Your task to perform on an android device: turn on javascript in the chrome app Image 0: 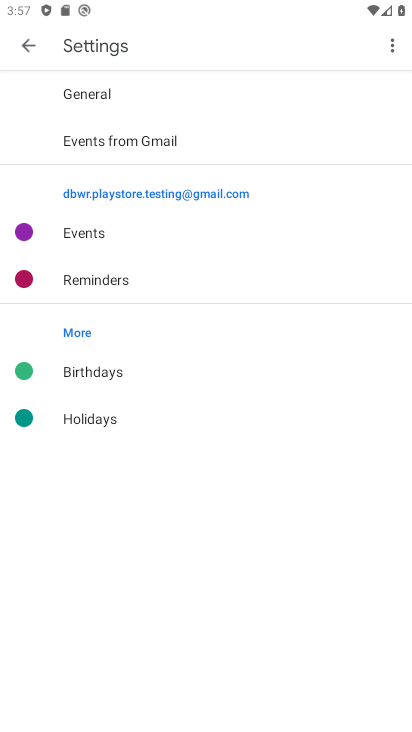
Step 0: press back button
Your task to perform on an android device: turn on javascript in the chrome app Image 1: 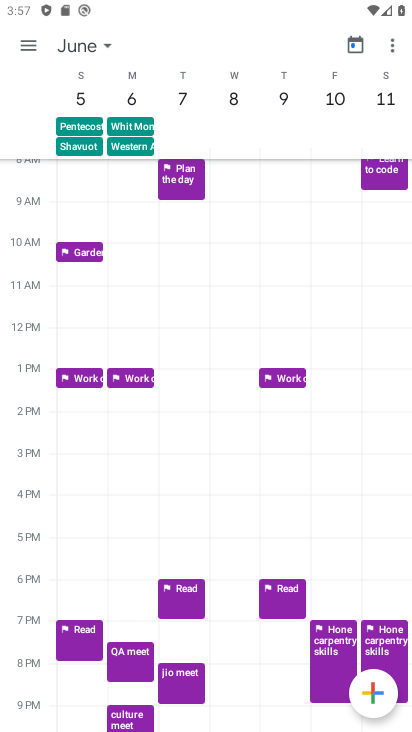
Step 1: press home button
Your task to perform on an android device: turn on javascript in the chrome app Image 2: 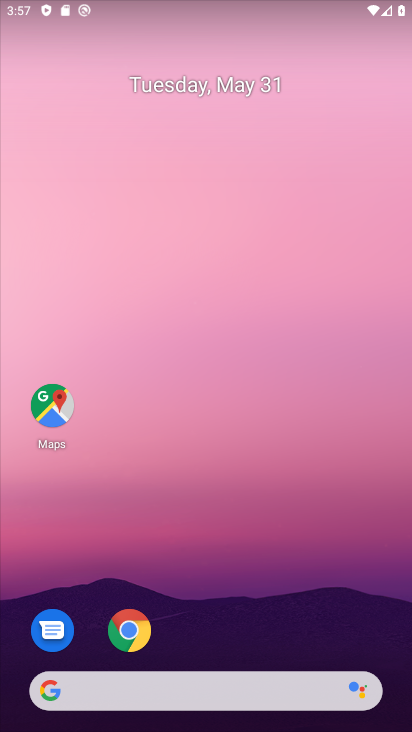
Step 2: drag from (277, 588) to (192, 32)
Your task to perform on an android device: turn on javascript in the chrome app Image 3: 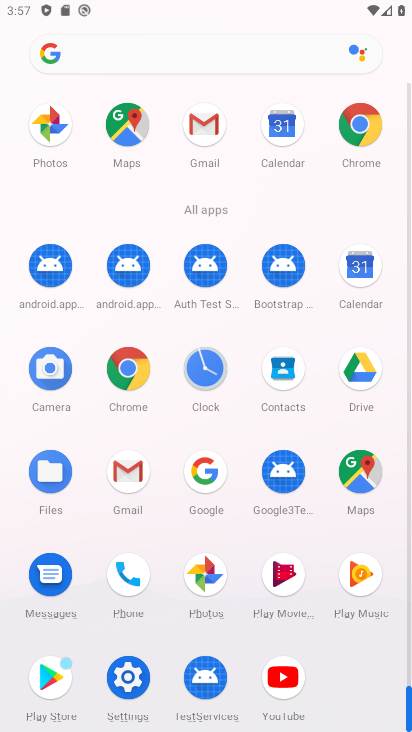
Step 3: click (128, 366)
Your task to perform on an android device: turn on javascript in the chrome app Image 4: 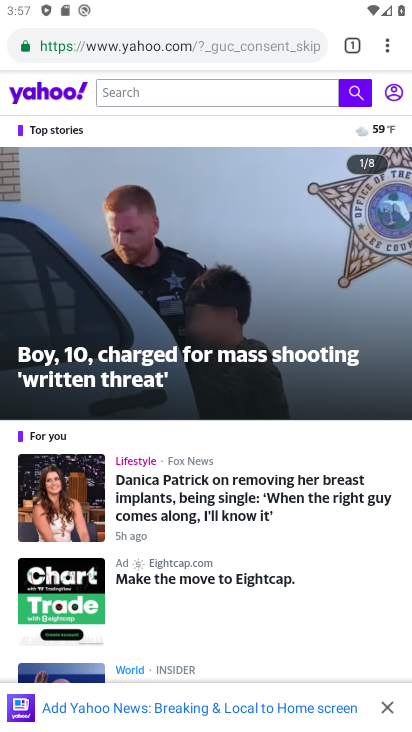
Step 4: drag from (388, 37) to (218, 549)
Your task to perform on an android device: turn on javascript in the chrome app Image 5: 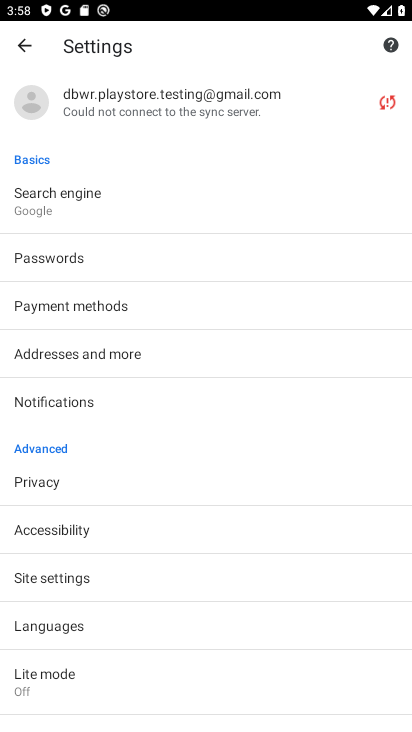
Step 5: click (69, 568)
Your task to perform on an android device: turn on javascript in the chrome app Image 6: 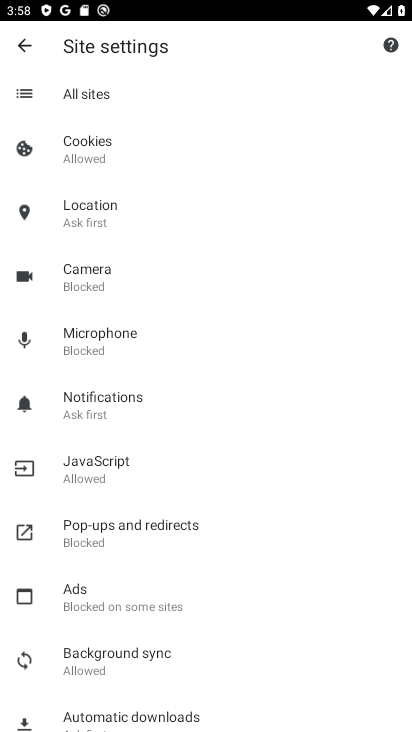
Step 6: task complete